Your task to perform on an android device: turn smart compose on in the gmail app Image 0: 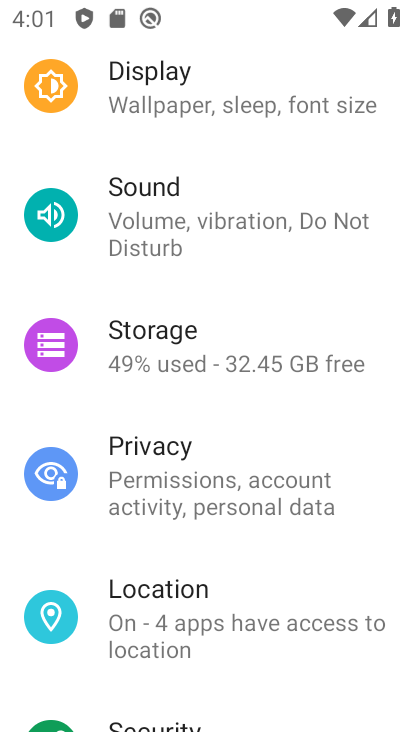
Step 0: press home button
Your task to perform on an android device: turn smart compose on in the gmail app Image 1: 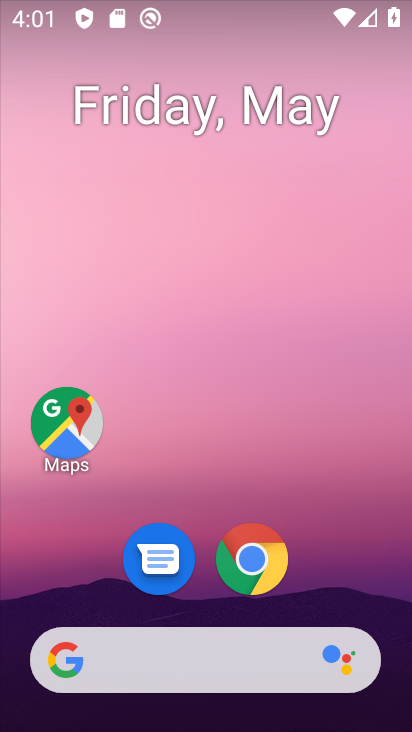
Step 1: drag from (307, 564) to (250, 160)
Your task to perform on an android device: turn smart compose on in the gmail app Image 2: 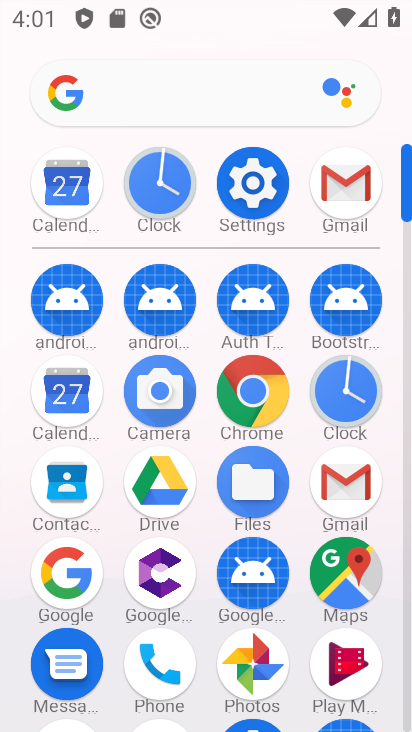
Step 2: click (337, 187)
Your task to perform on an android device: turn smart compose on in the gmail app Image 3: 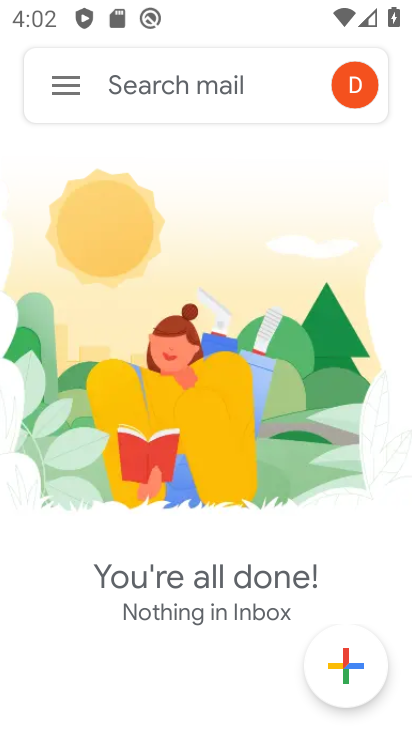
Step 3: click (75, 90)
Your task to perform on an android device: turn smart compose on in the gmail app Image 4: 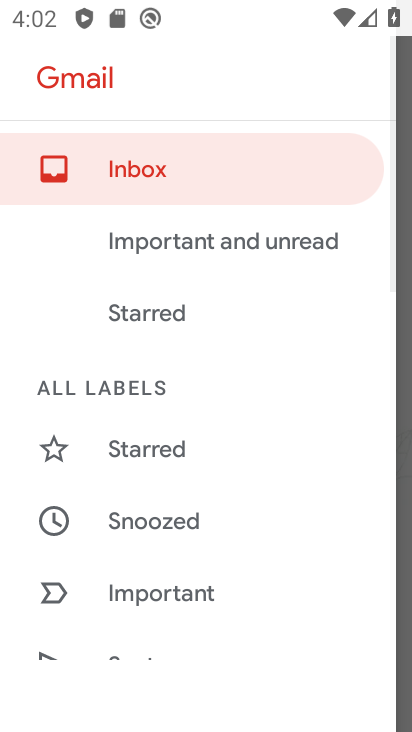
Step 4: drag from (241, 657) to (229, 264)
Your task to perform on an android device: turn smart compose on in the gmail app Image 5: 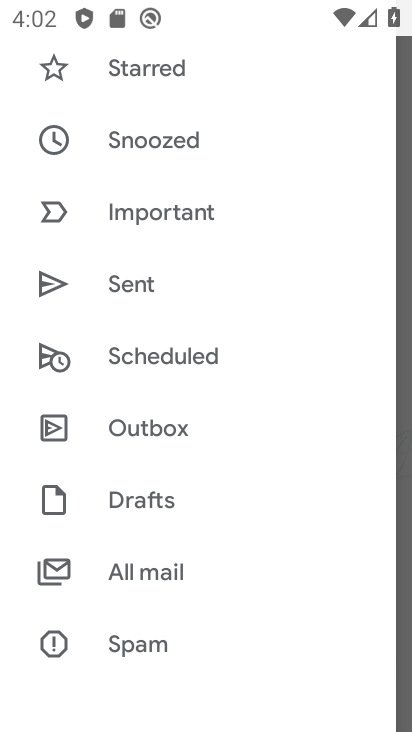
Step 5: drag from (177, 540) to (194, 170)
Your task to perform on an android device: turn smart compose on in the gmail app Image 6: 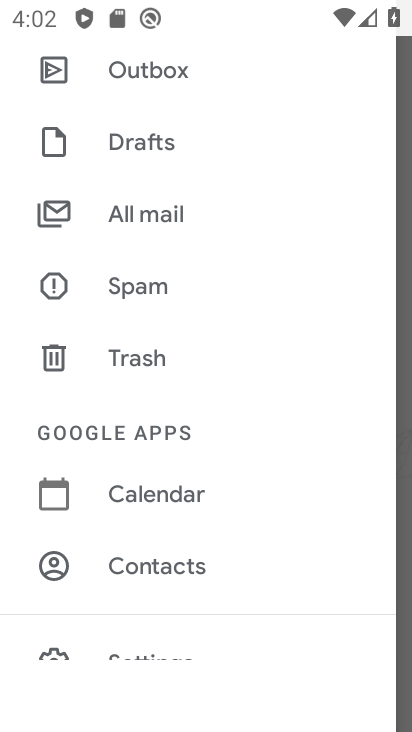
Step 6: drag from (168, 584) to (204, 207)
Your task to perform on an android device: turn smart compose on in the gmail app Image 7: 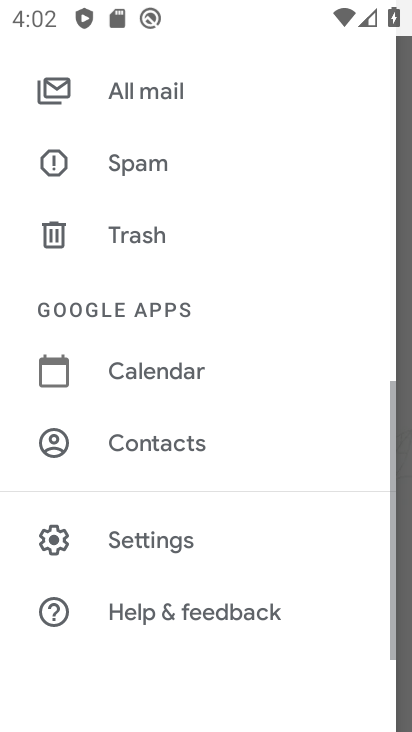
Step 7: click (171, 548)
Your task to perform on an android device: turn smart compose on in the gmail app Image 8: 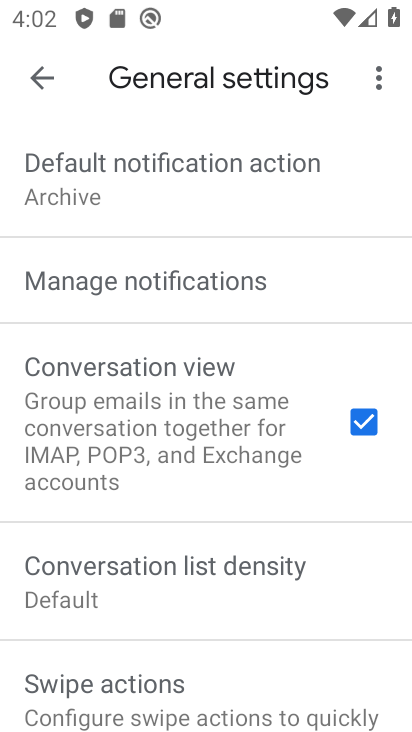
Step 8: drag from (169, 595) to (200, 178)
Your task to perform on an android device: turn smart compose on in the gmail app Image 9: 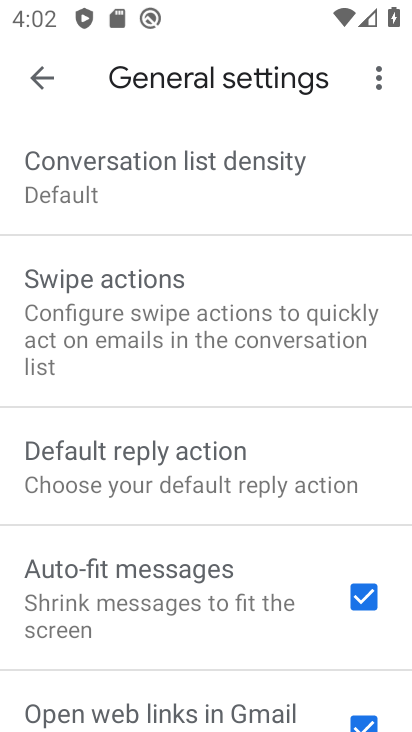
Step 9: drag from (185, 608) to (154, 133)
Your task to perform on an android device: turn smart compose on in the gmail app Image 10: 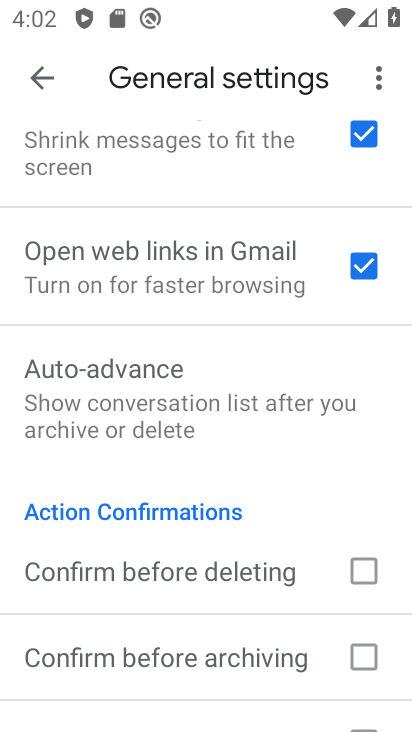
Step 10: drag from (175, 621) to (209, 174)
Your task to perform on an android device: turn smart compose on in the gmail app Image 11: 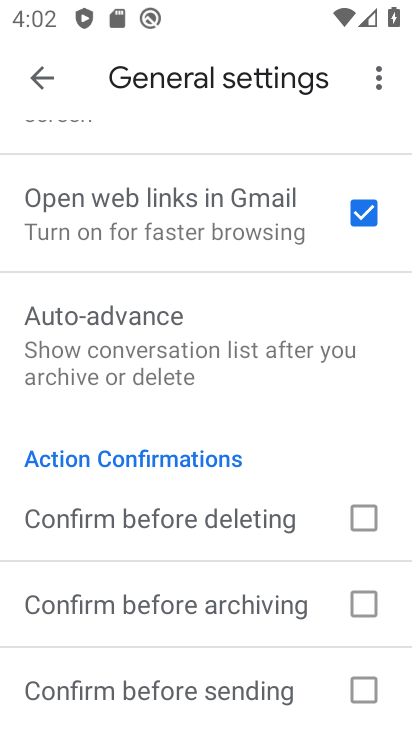
Step 11: drag from (156, 499) to (159, 164)
Your task to perform on an android device: turn smart compose on in the gmail app Image 12: 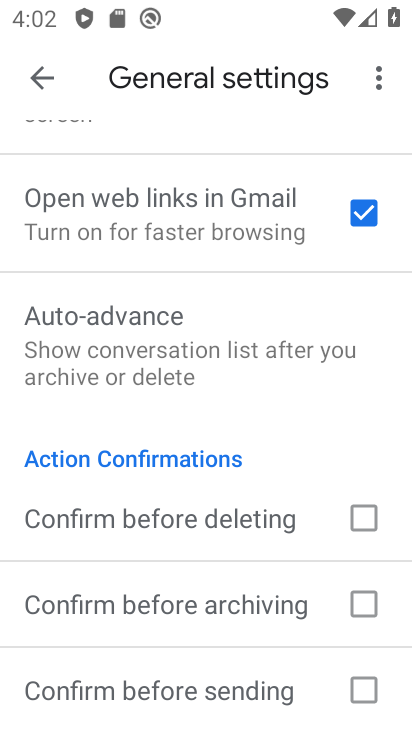
Step 12: drag from (188, 162) to (149, 601)
Your task to perform on an android device: turn smart compose on in the gmail app Image 13: 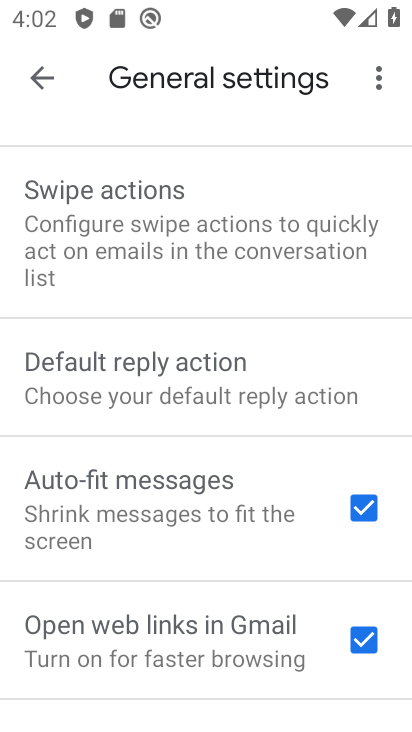
Step 13: drag from (170, 240) to (177, 638)
Your task to perform on an android device: turn smart compose on in the gmail app Image 14: 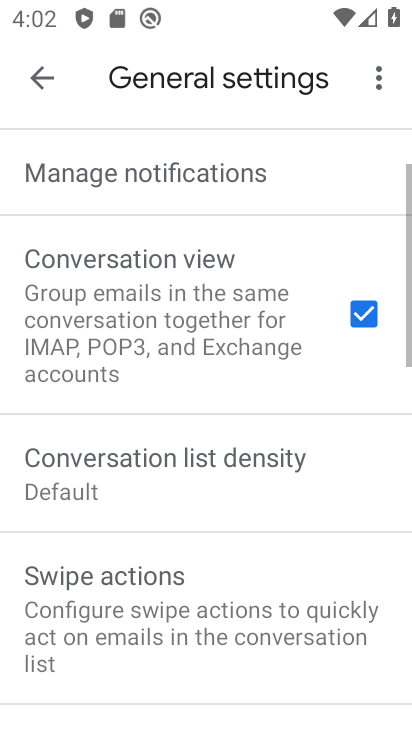
Step 14: drag from (196, 269) to (196, 610)
Your task to perform on an android device: turn smart compose on in the gmail app Image 15: 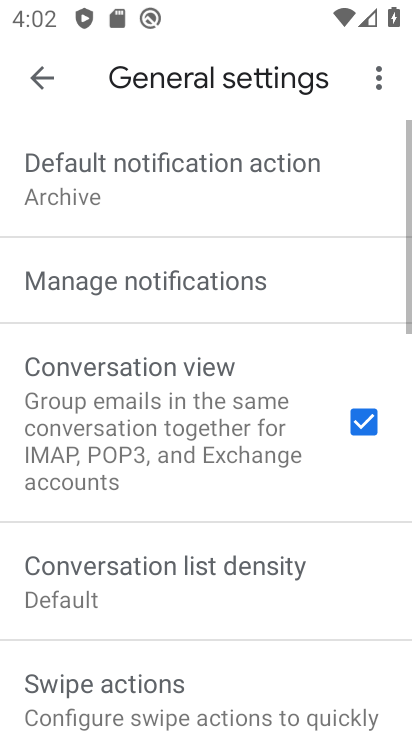
Step 15: drag from (212, 214) to (227, 638)
Your task to perform on an android device: turn smart compose on in the gmail app Image 16: 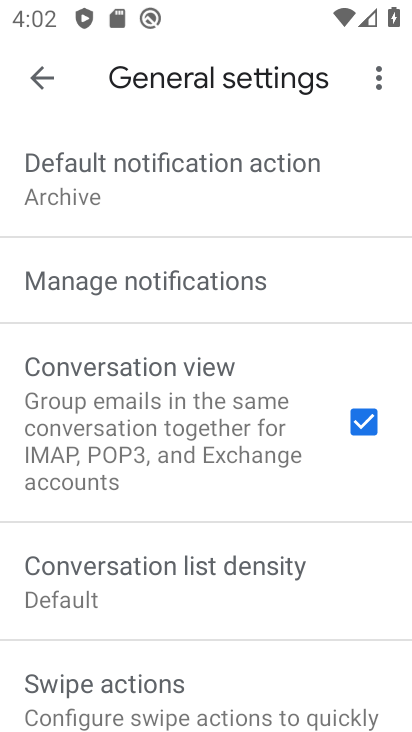
Step 16: click (32, 67)
Your task to perform on an android device: turn smart compose on in the gmail app Image 17: 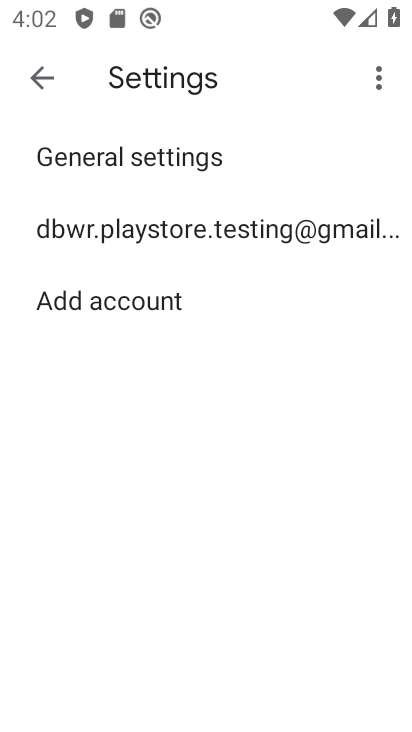
Step 17: click (32, 70)
Your task to perform on an android device: turn smart compose on in the gmail app Image 18: 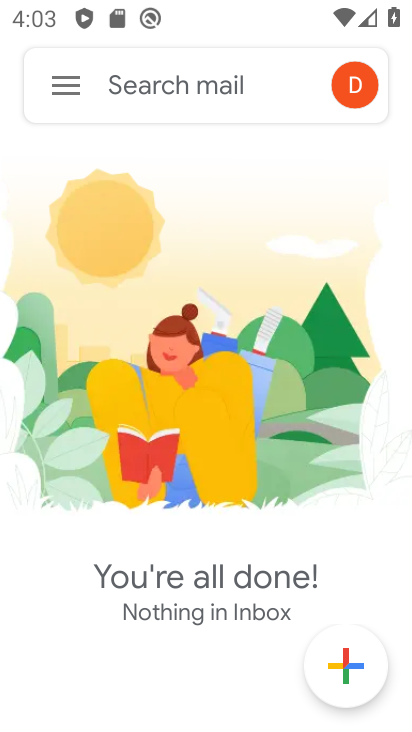
Step 18: click (50, 87)
Your task to perform on an android device: turn smart compose on in the gmail app Image 19: 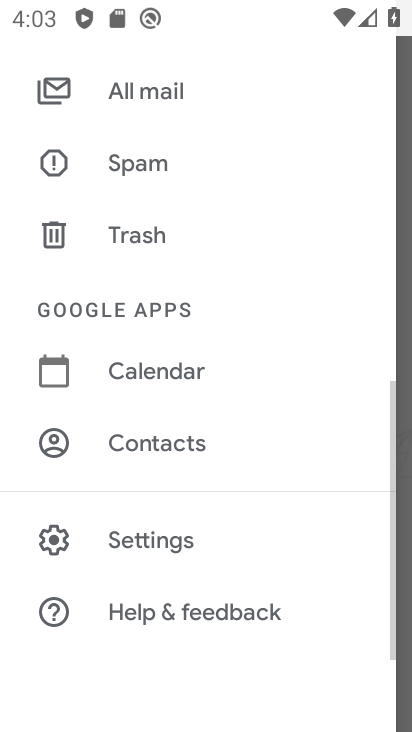
Step 19: drag from (142, 111) to (97, 486)
Your task to perform on an android device: turn smart compose on in the gmail app Image 20: 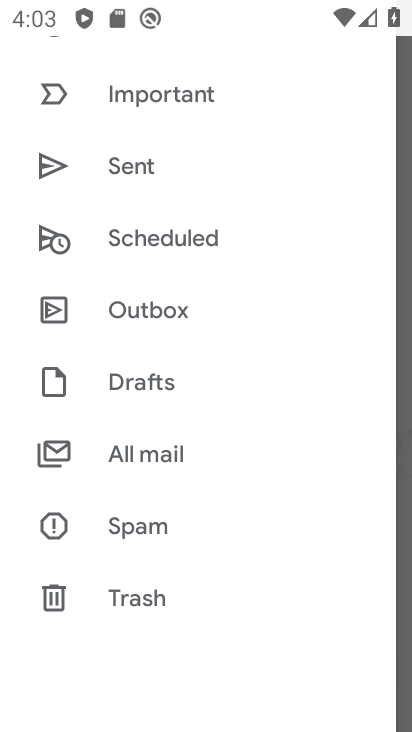
Step 20: click (227, 595)
Your task to perform on an android device: turn smart compose on in the gmail app Image 21: 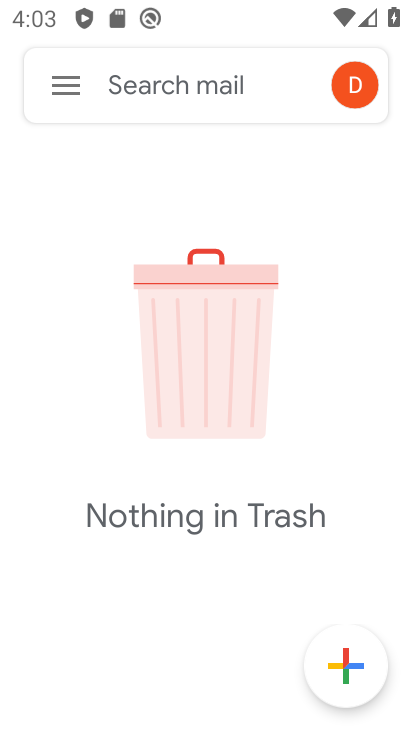
Step 21: click (73, 83)
Your task to perform on an android device: turn smart compose on in the gmail app Image 22: 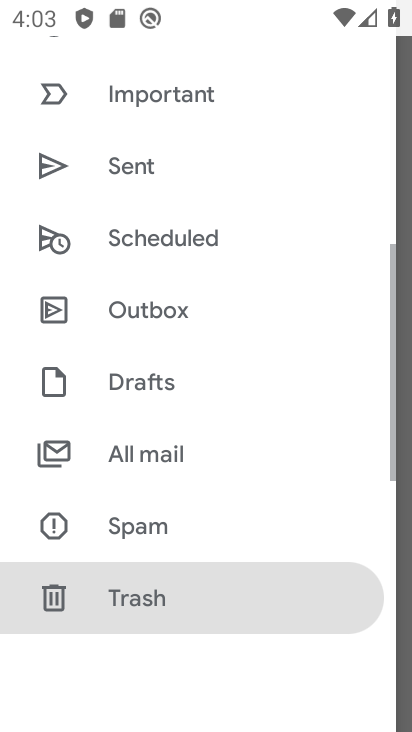
Step 22: drag from (219, 554) to (180, 227)
Your task to perform on an android device: turn smart compose on in the gmail app Image 23: 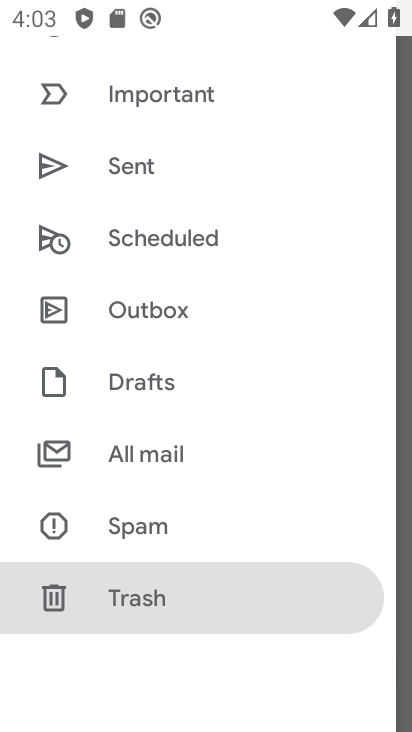
Step 23: drag from (190, 148) to (201, 512)
Your task to perform on an android device: turn smart compose on in the gmail app Image 24: 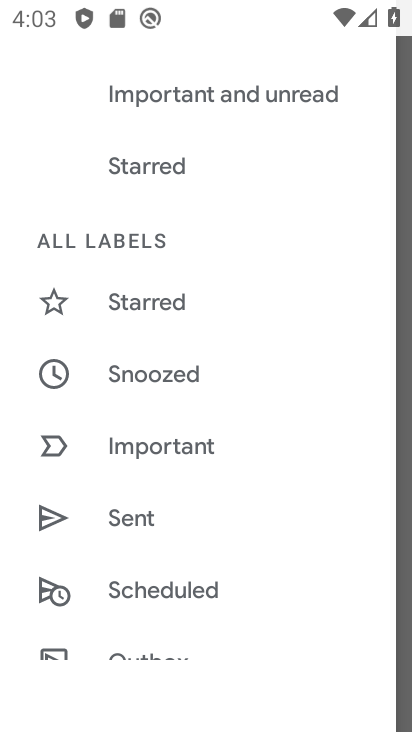
Step 24: drag from (204, 265) to (199, 572)
Your task to perform on an android device: turn smart compose on in the gmail app Image 25: 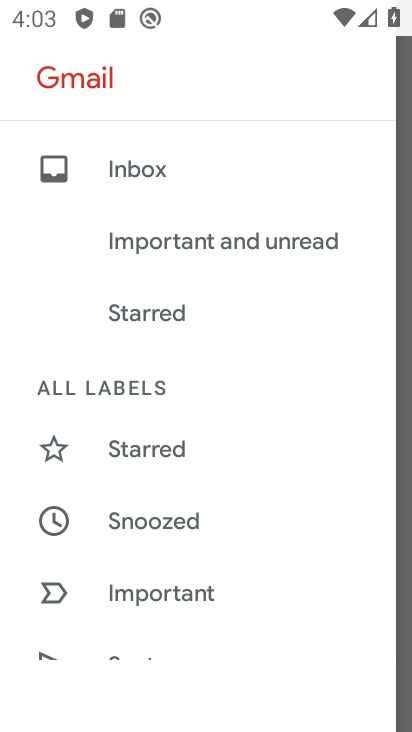
Step 25: drag from (223, 516) to (199, 110)
Your task to perform on an android device: turn smart compose on in the gmail app Image 26: 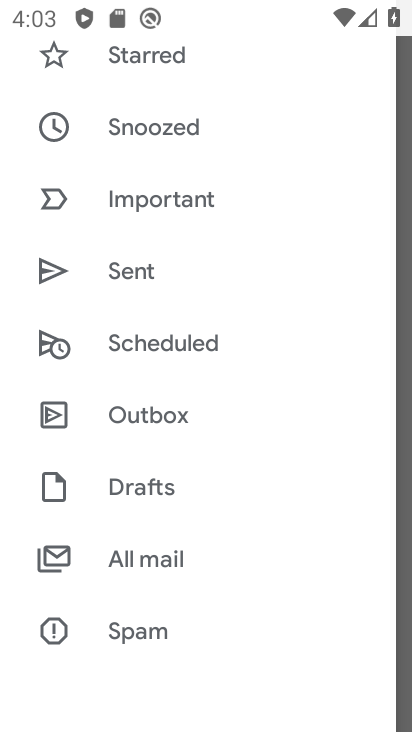
Step 26: click (43, 614)
Your task to perform on an android device: turn smart compose on in the gmail app Image 27: 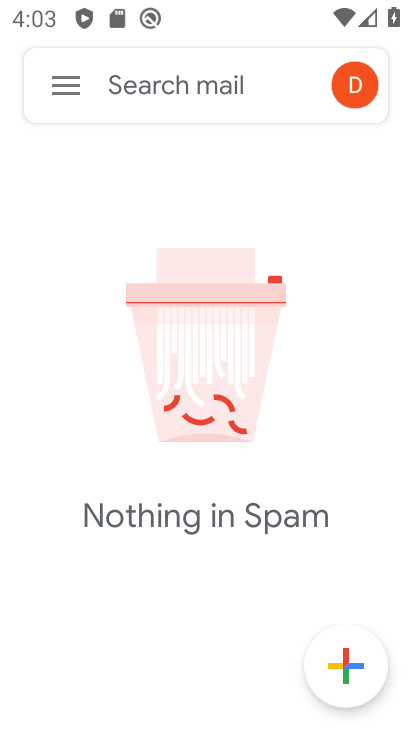
Step 27: task complete